Your task to perform on an android device: turn on wifi Image 0: 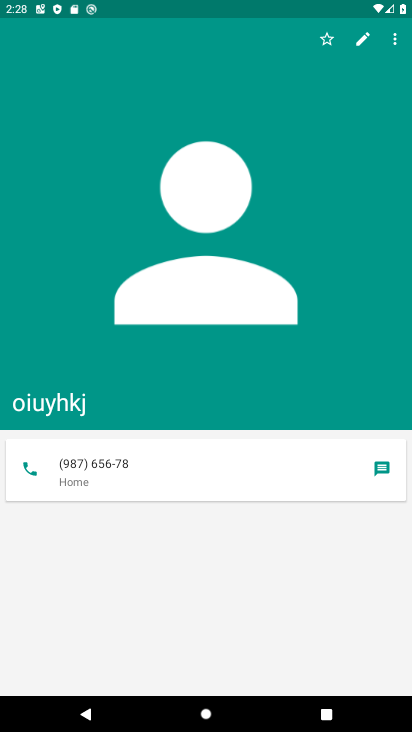
Step 0: press home button
Your task to perform on an android device: turn on wifi Image 1: 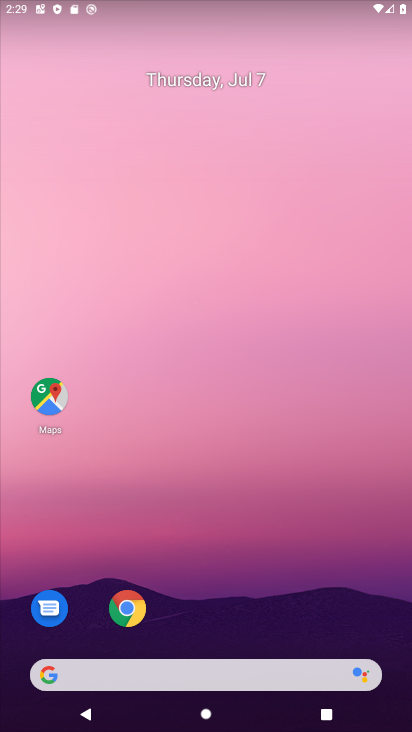
Step 1: drag from (356, 637) to (334, 9)
Your task to perform on an android device: turn on wifi Image 2: 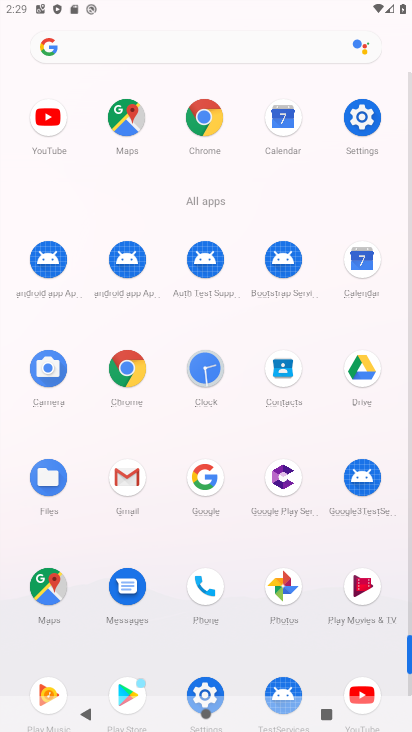
Step 2: click (409, 592)
Your task to perform on an android device: turn on wifi Image 3: 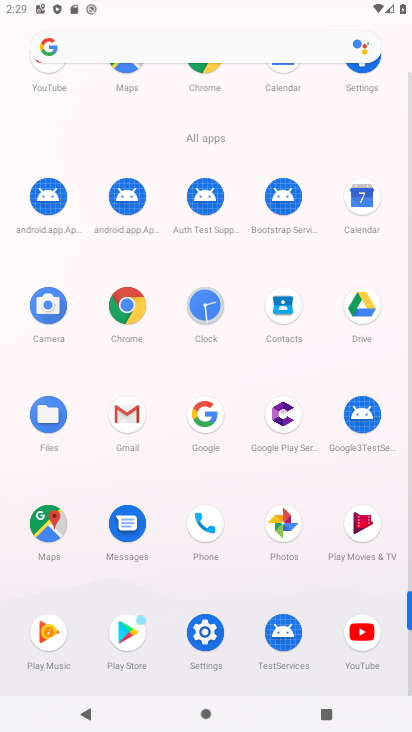
Step 3: click (204, 631)
Your task to perform on an android device: turn on wifi Image 4: 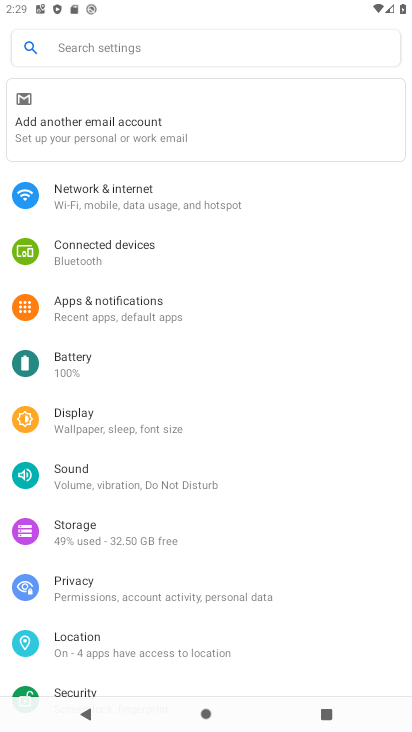
Step 4: click (100, 188)
Your task to perform on an android device: turn on wifi Image 5: 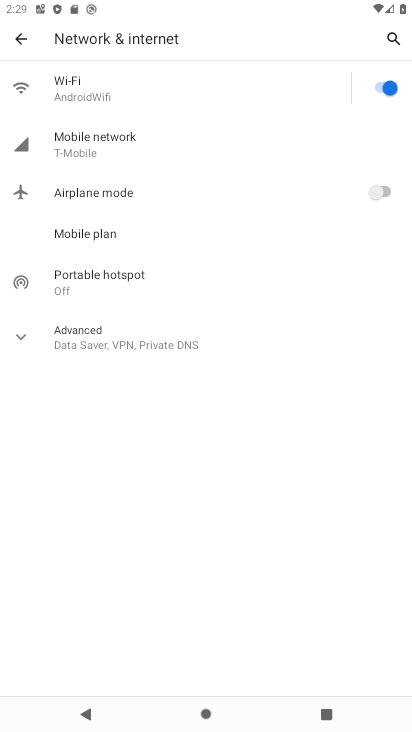
Step 5: task complete